Your task to perform on an android device: set default search engine in the chrome app Image 0: 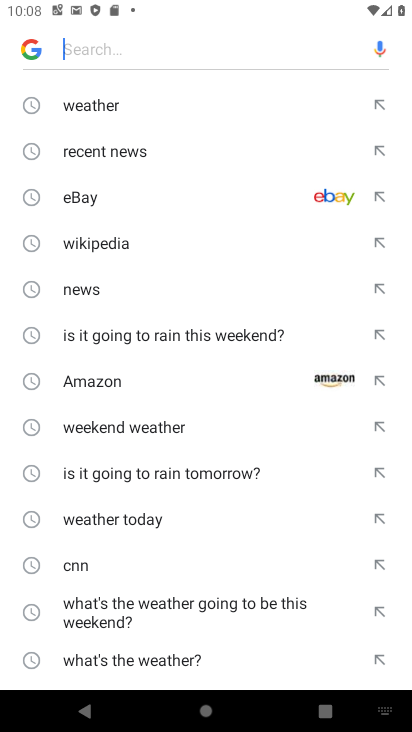
Step 0: press back button
Your task to perform on an android device: set default search engine in the chrome app Image 1: 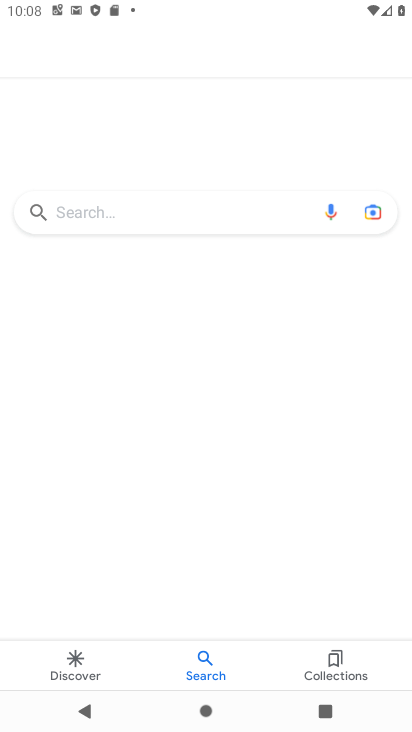
Step 1: press back button
Your task to perform on an android device: set default search engine in the chrome app Image 2: 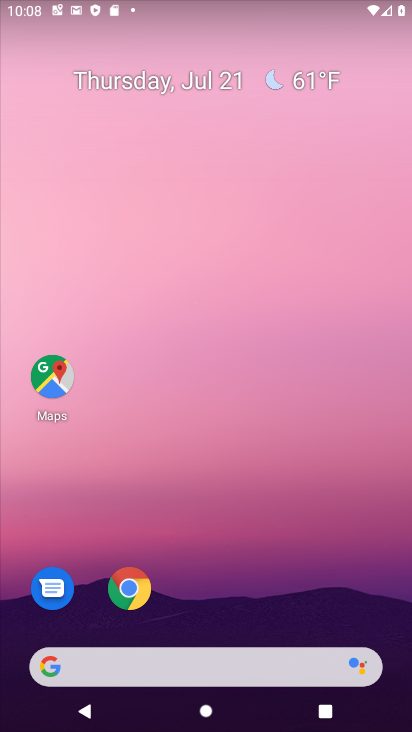
Step 2: click (111, 589)
Your task to perform on an android device: set default search engine in the chrome app Image 3: 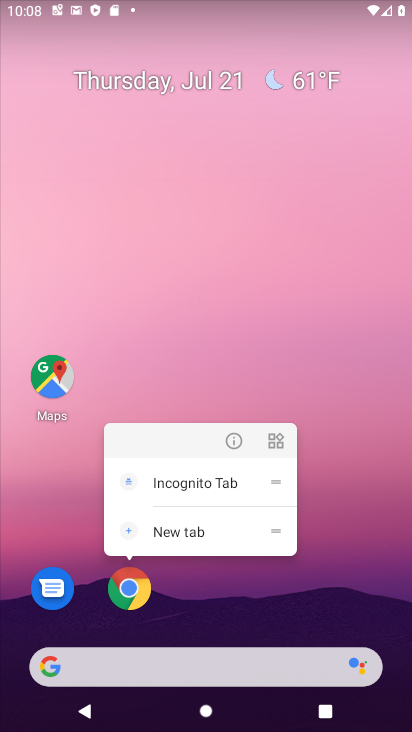
Step 3: click (129, 578)
Your task to perform on an android device: set default search engine in the chrome app Image 4: 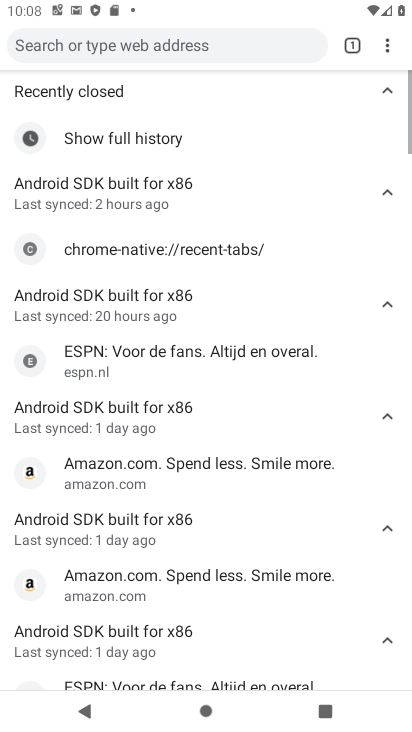
Step 4: drag from (386, 36) to (245, 385)
Your task to perform on an android device: set default search engine in the chrome app Image 5: 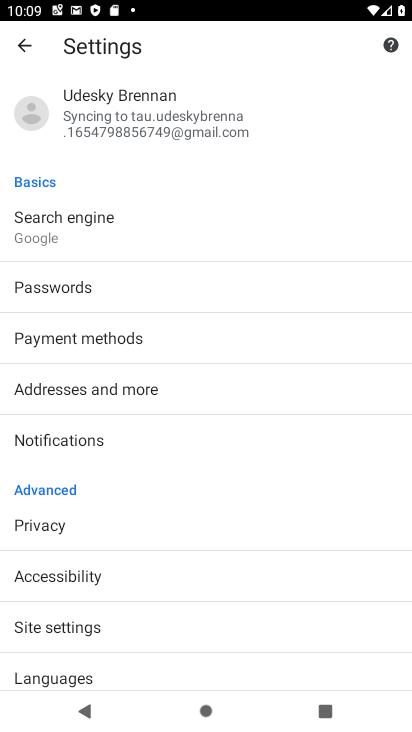
Step 5: click (55, 211)
Your task to perform on an android device: set default search engine in the chrome app Image 6: 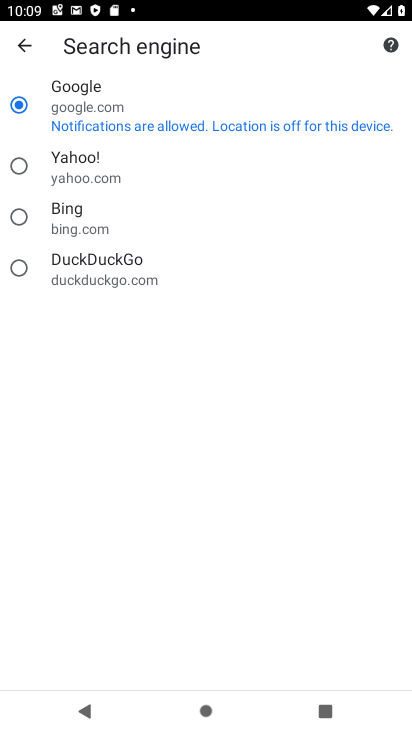
Step 6: click (21, 162)
Your task to perform on an android device: set default search engine in the chrome app Image 7: 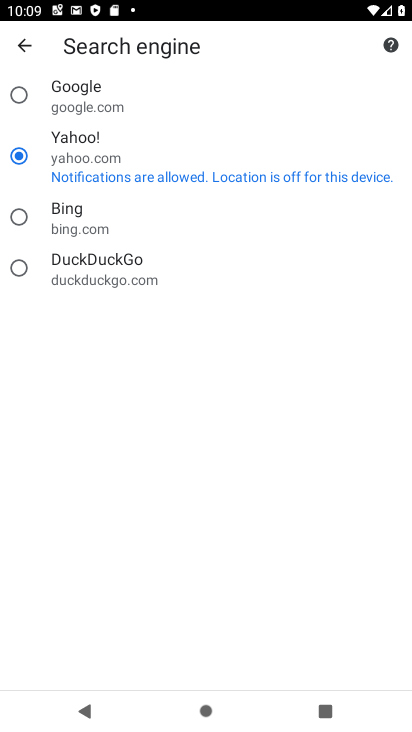
Step 7: task complete